Your task to perform on an android device: turn off notifications settings in the gmail app Image 0: 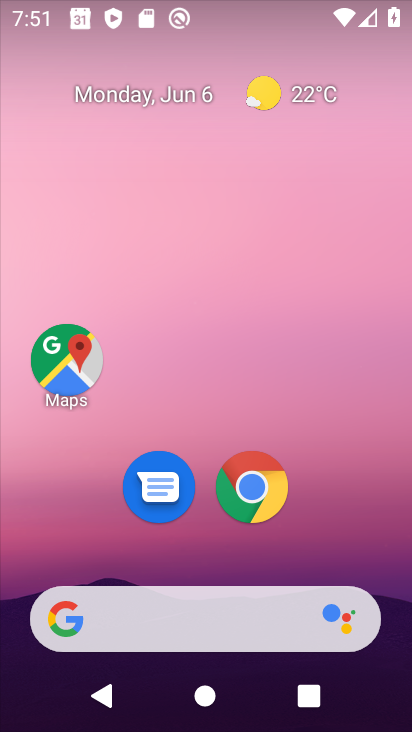
Step 0: drag from (383, 568) to (324, 146)
Your task to perform on an android device: turn off notifications settings in the gmail app Image 1: 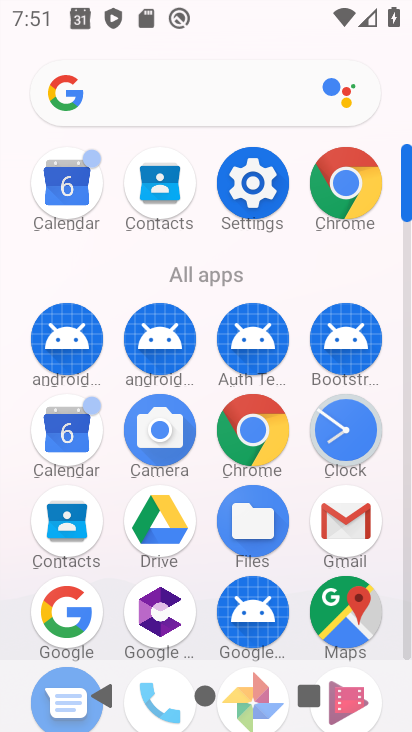
Step 1: click (341, 534)
Your task to perform on an android device: turn off notifications settings in the gmail app Image 2: 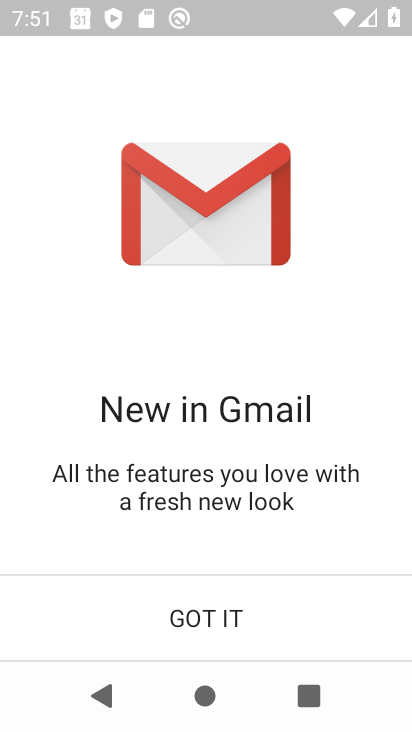
Step 2: click (247, 643)
Your task to perform on an android device: turn off notifications settings in the gmail app Image 3: 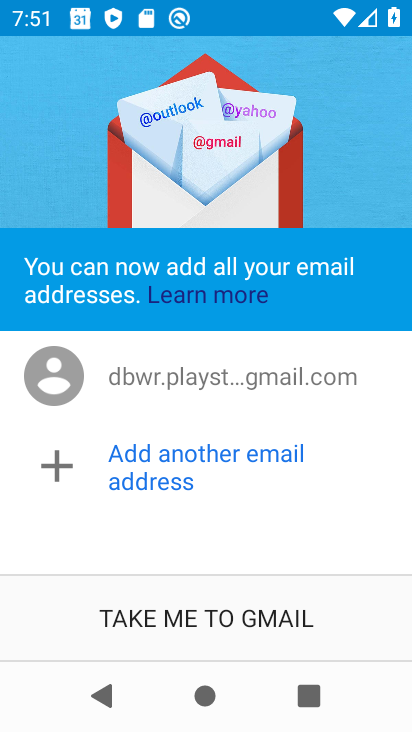
Step 3: click (240, 626)
Your task to perform on an android device: turn off notifications settings in the gmail app Image 4: 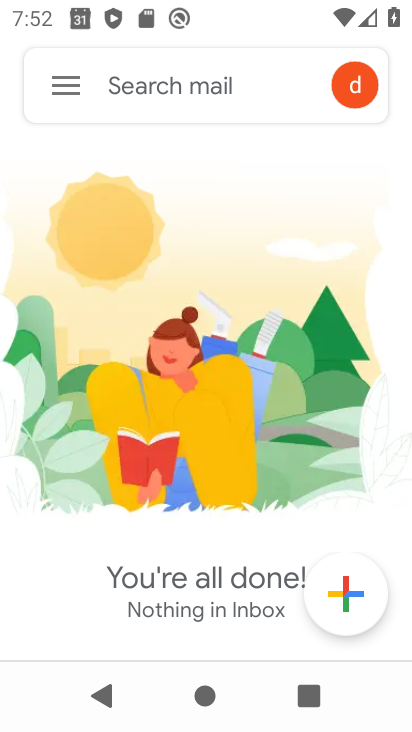
Step 4: click (63, 89)
Your task to perform on an android device: turn off notifications settings in the gmail app Image 5: 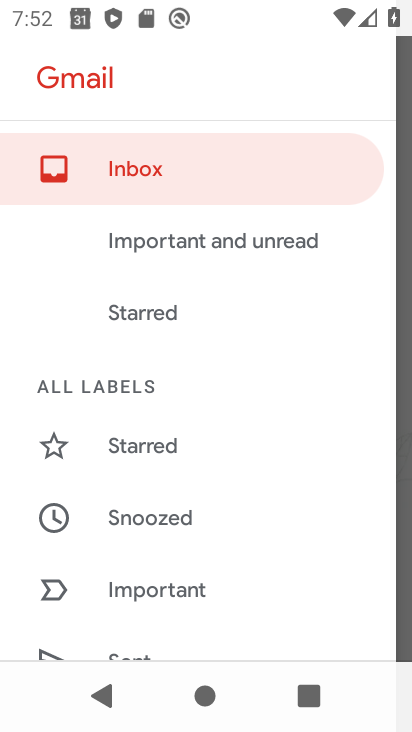
Step 5: drag from (220, 588) to (251, 216)
Your task to perform on an android device: turn off notifications settings in the gmail app Image 6: 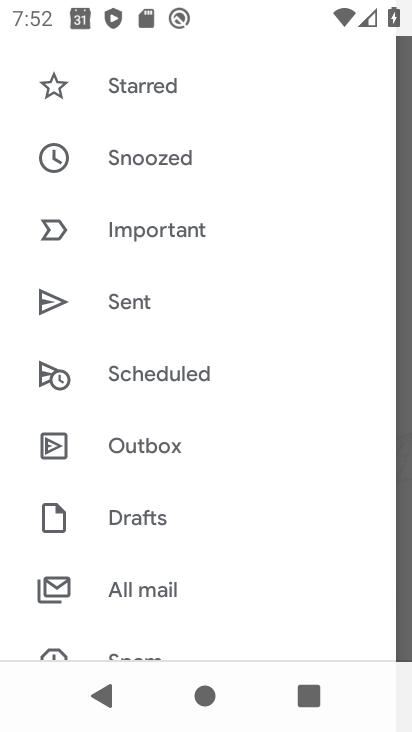
Step 6: drag from (207, 568) to (271, 286)
Your task to perform on an android device: turn off notifications settings in the gmail app Image 7: 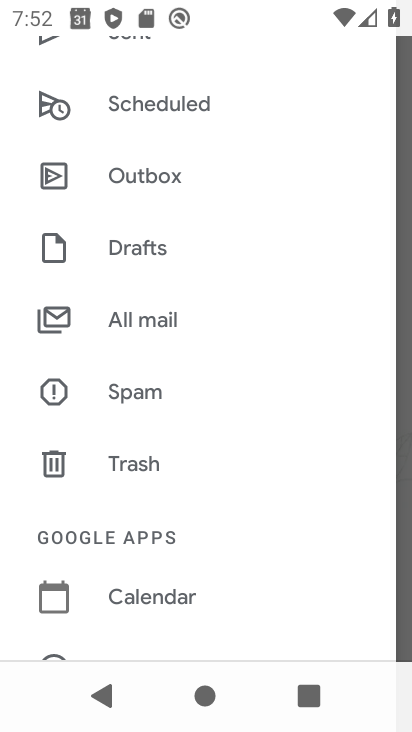
Step 7: drag from (232, 532) to (261, 237)
Your task to perform on an android device: turn off notifications settings in the gmail app Image 8: 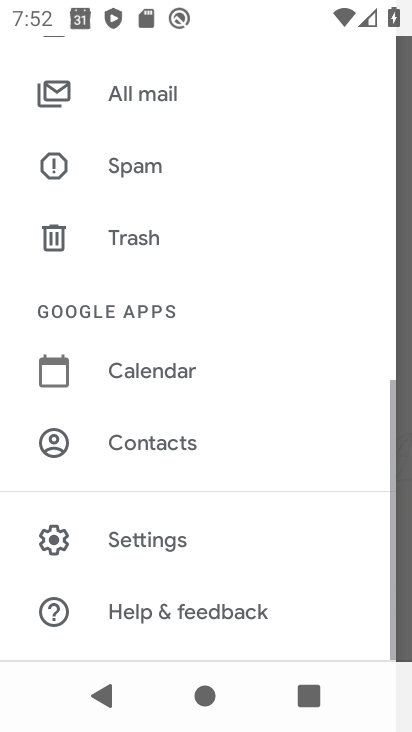
Step 8: click (179, 552)
Your task to perform on an android device: turn off notifications settings in the gmail app Image 9: 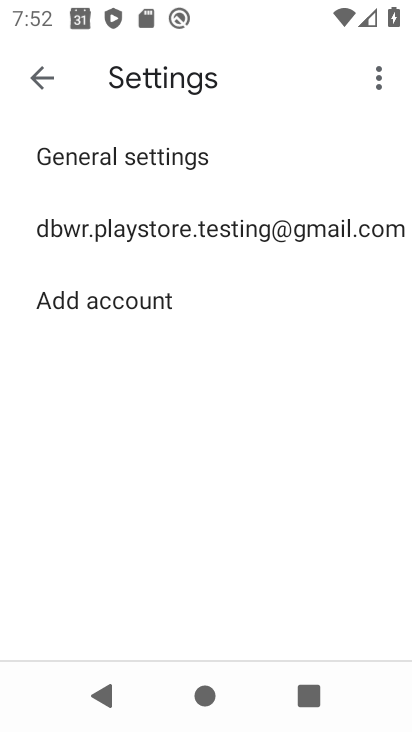
Step 9: click (234, 238)
Your task to perform on an android device: turn off notifications settings in the gmail app Image 10: 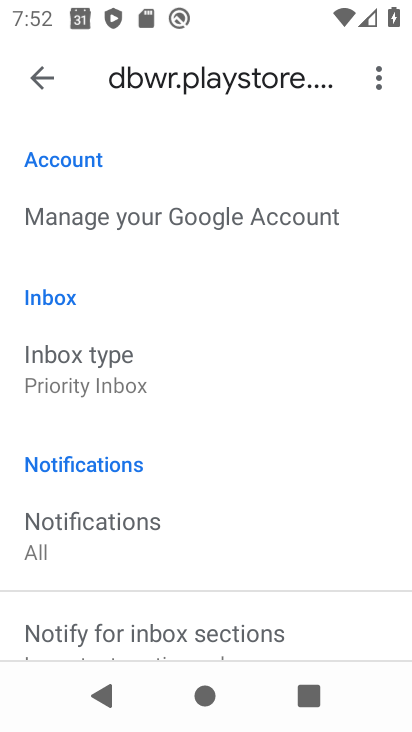
Step 10: click (91, 547)
Your task to perform on an android device: turn off notifications settings in the gmail app Image 11: 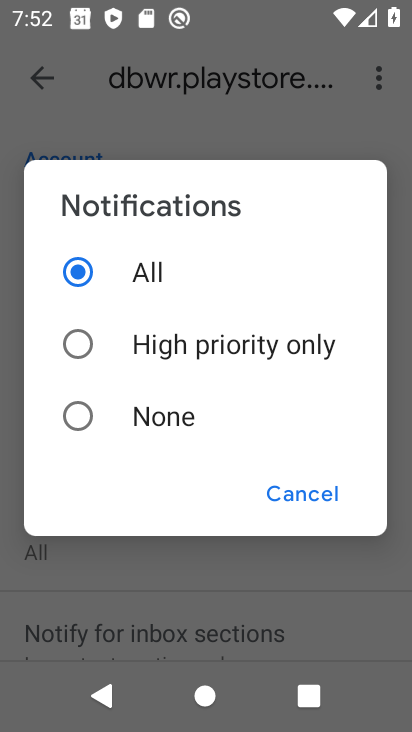
Step 11: click (141, 414)
Your task to perform on an android device: turn off notifications settings in the gmail app Image 12: 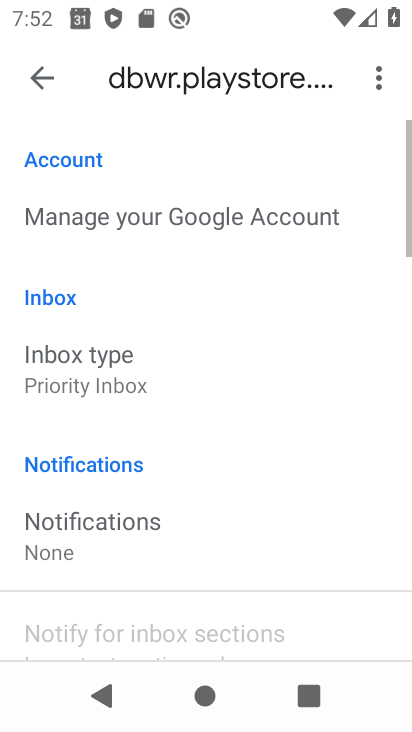
Step 12: task complete